Your task to perform on an android device: change the clock display to show seconds Image 0: 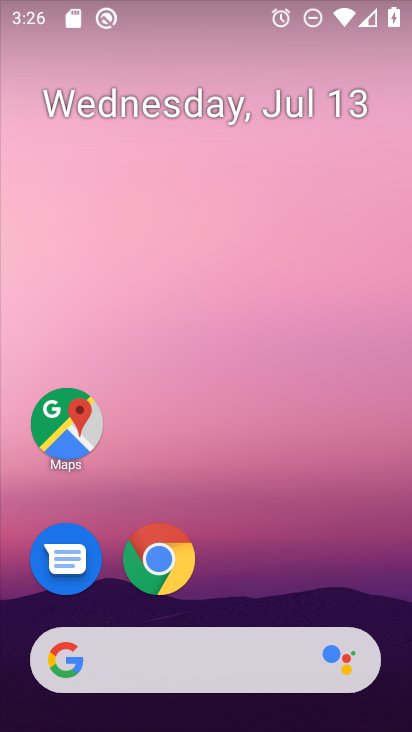
Step 0: drag from (358, 576) to (375, 162)
Your task to perform on an android device: change the clock display to show seconds Image 1: 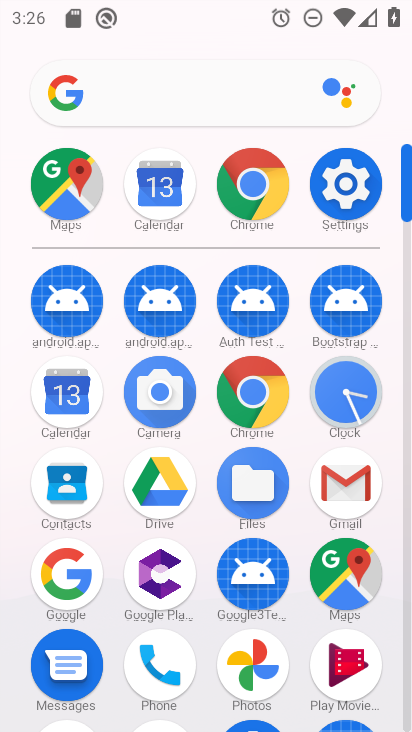
Step 1: click (362, 383)
Your task to perform on an android device: change the clock display to show seconds Image 2: 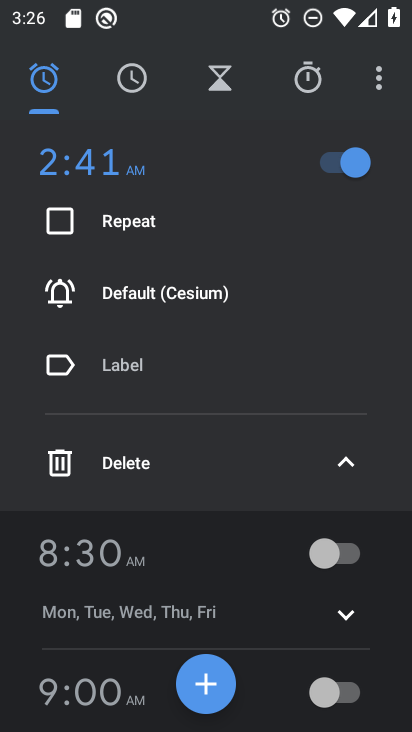
Step 2: click (378, 80)
Your task to perform on an android device: change the clock display to show seconds Image 3: 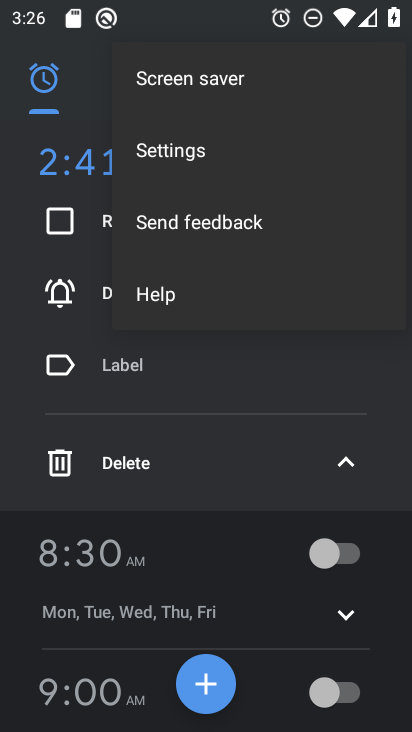
Step 3: click (253, 165)
Your task to perform on an android device: change the clock display to show seconds Image 4: 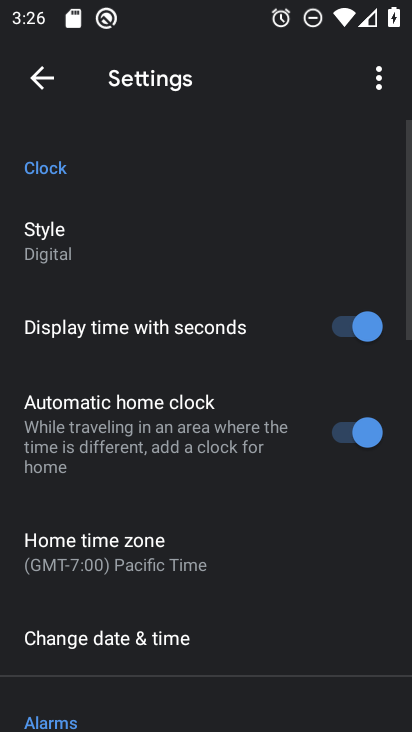
Step 4: task complete